Your task to perform on an android device: toggle location history Image 0: 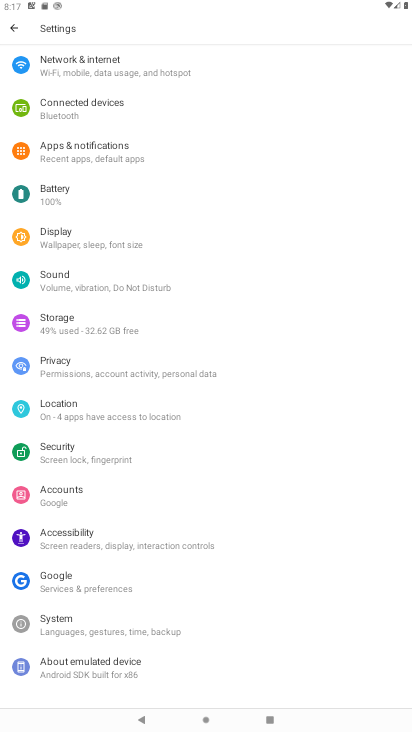
Step 0: click (42, 399)
Your task to perform on an android device: toggle location history Image 1: 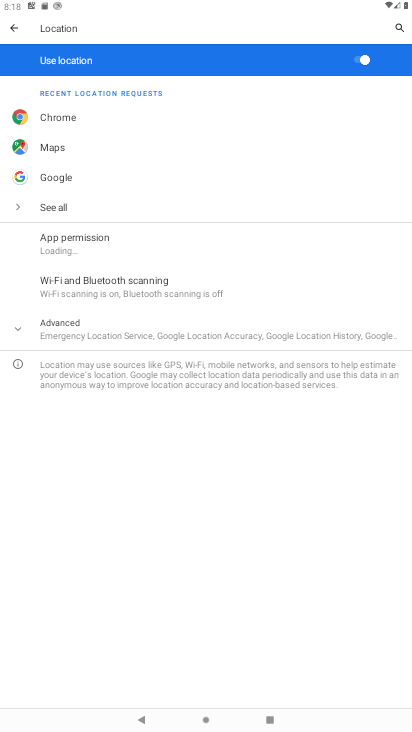
Step 1: click (15, 318)
Your task to perform on an android device: toggle location history Image 2: 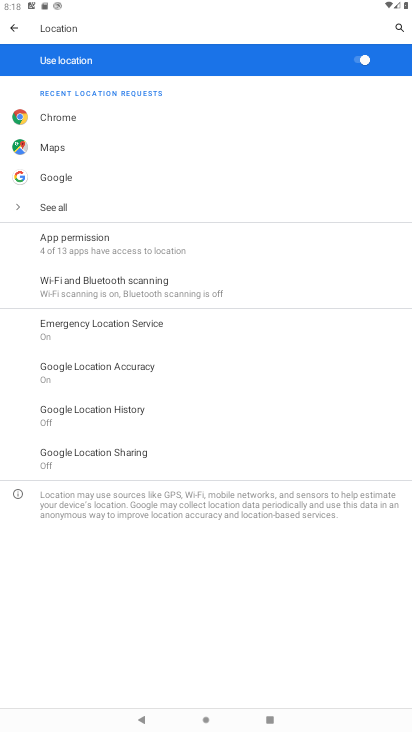
Step 2: click (62, 410)
Your task to perform on an android device: toggle location history Image 3: 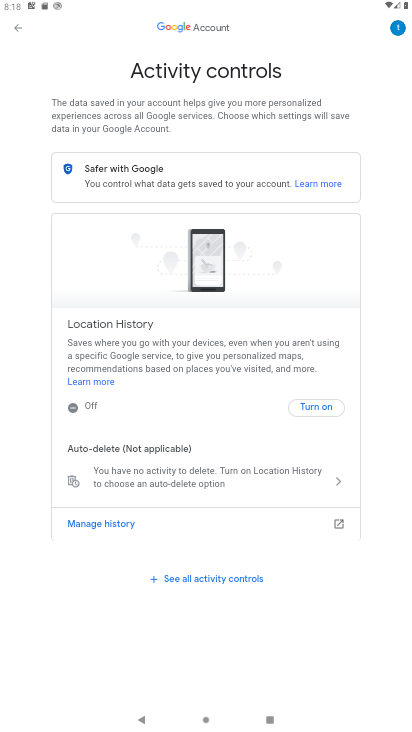
Step 3: click (329, 403)
Your task to perform on an android device: toggle location history Image 4: 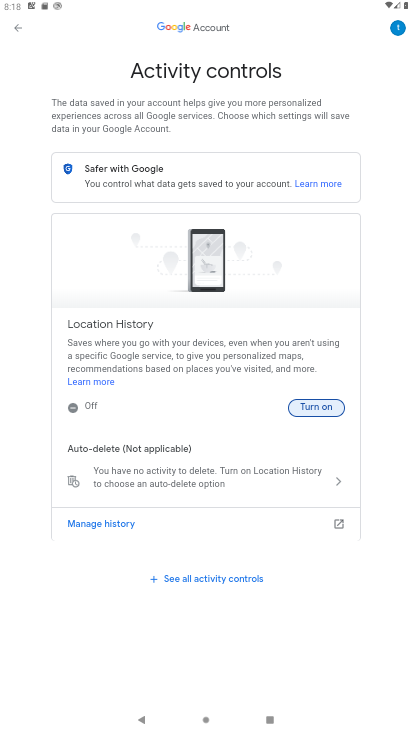
Step 4: drag from (201, 463) to (145, 204)
Your task to perform on an android device: toggle location history Image 5: 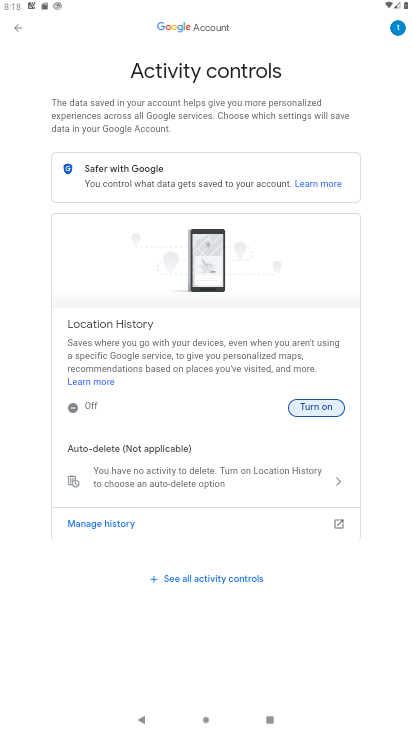
Step 5: click (298, 406)
Your task to perform on an android device: toggle location history Image 6: 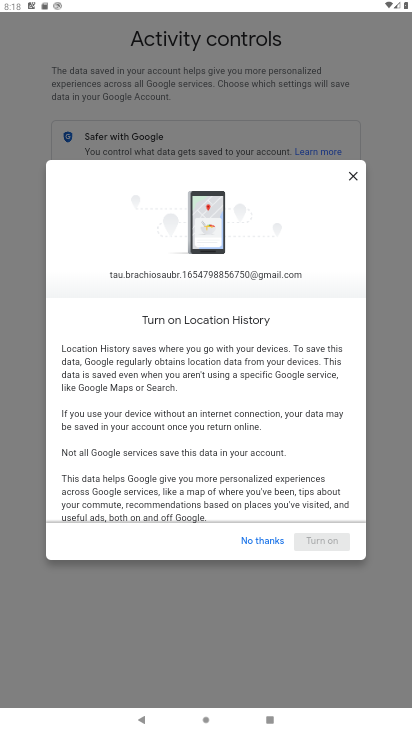
Step 6: drag from (241, 501) to (224, 222)
Your task to perform on an android device: toggle location history Image 7: 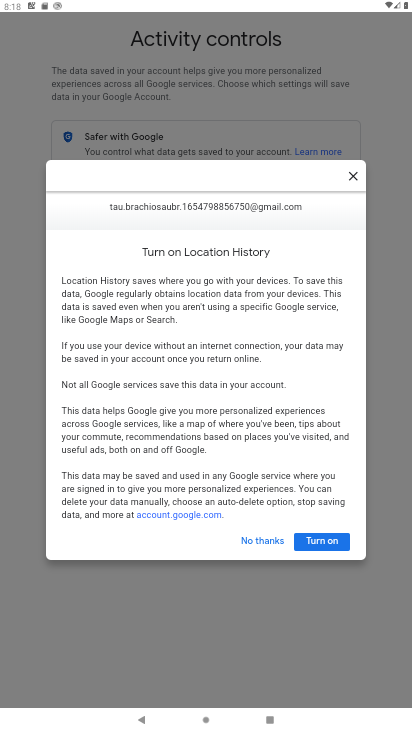
Step 7: click (307, 537)
Your task to perform on an android device: toggle location history Image 8: 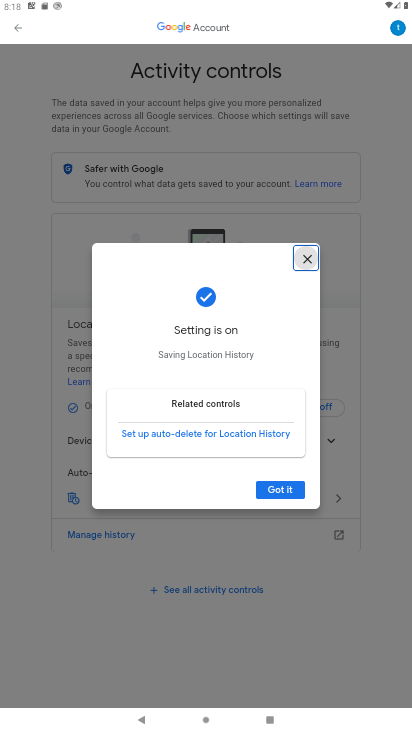
Step 8: click (282, 483)
Your task to perform on an android device: toggle location history Image 9: 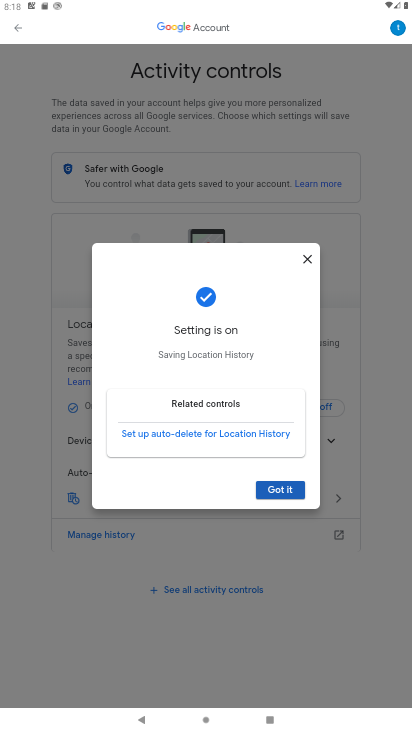
Step 9: click (282, 484)
Your task to perform on an android device: toggle location history Image 10: 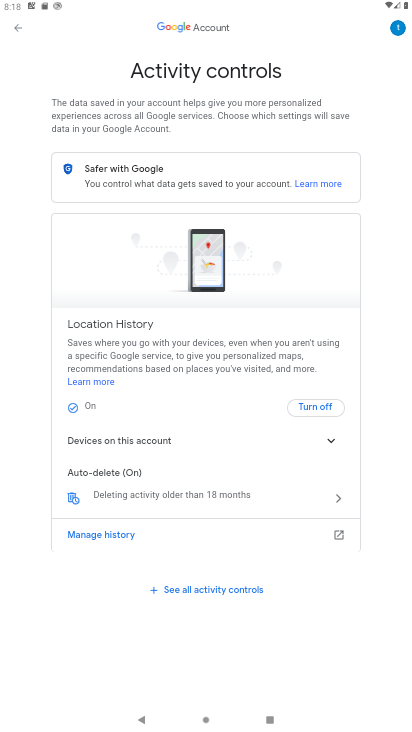
Step 10: task complete